Your task to perform on an android device: Open settings on Google Maps Image 0: 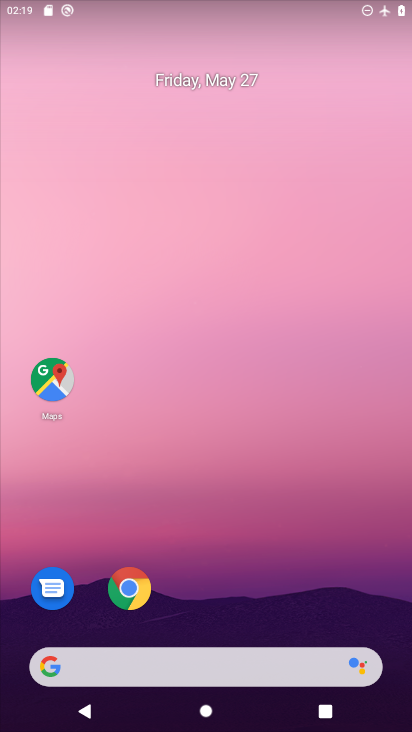
Step 0: click (53, 380)
Your task to perform on an android device: Open settings on Google Maps Image 1: 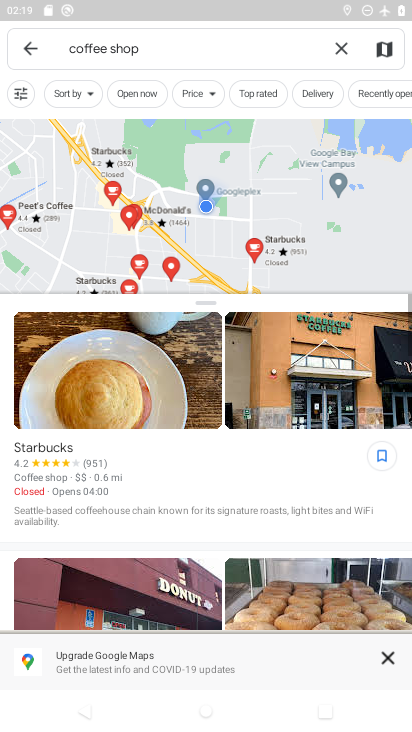
Step 1: click (341, 45)
Your task to perform on an android device: Open settings on Google Maps Image 2: 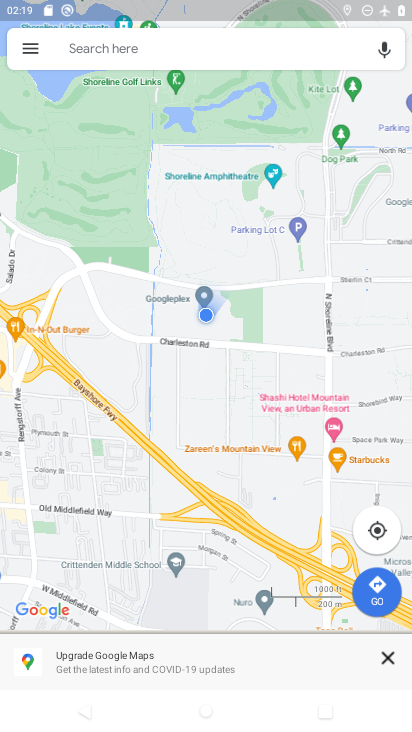
Step 2: click (40, 47)
Your task to perform on an android device: Open settings on Google Maps Image 3: 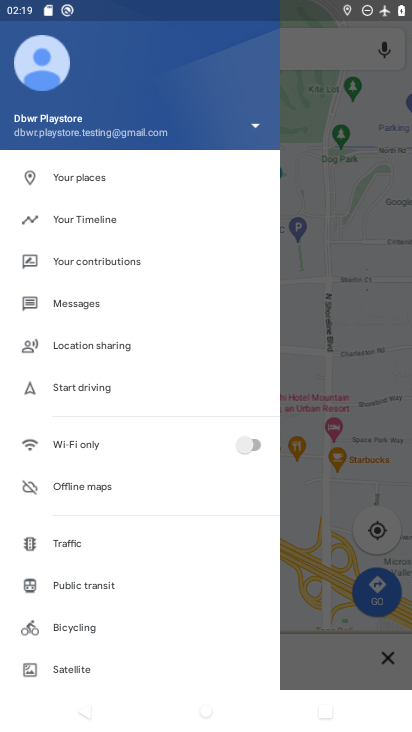
Step 3: drag from (150, 598) to (154, 240)
Your task to perform on an android device: Open settings on Google Maps Image 4: 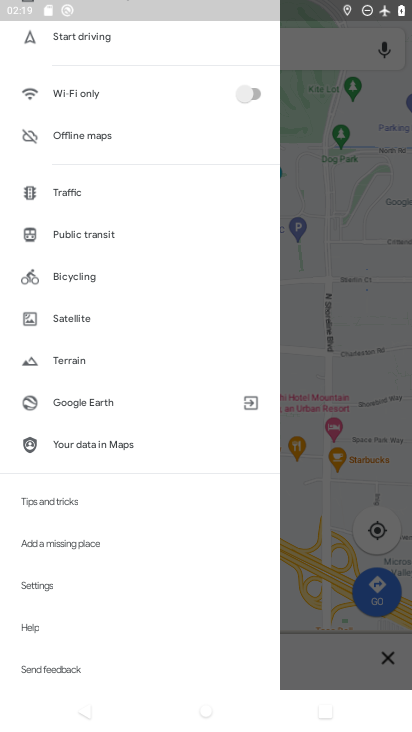
Step 4: click (36, 596)
Your task to perform on an android device: Open settings on Google Maps Image 5: 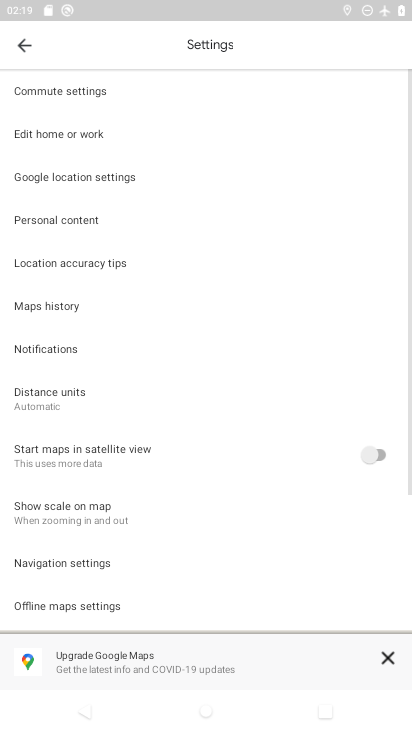
Step 5: drag from (225, 593) to (217, 313)
Your task to perform on an android device: Open settings on Google Maps Image 6: 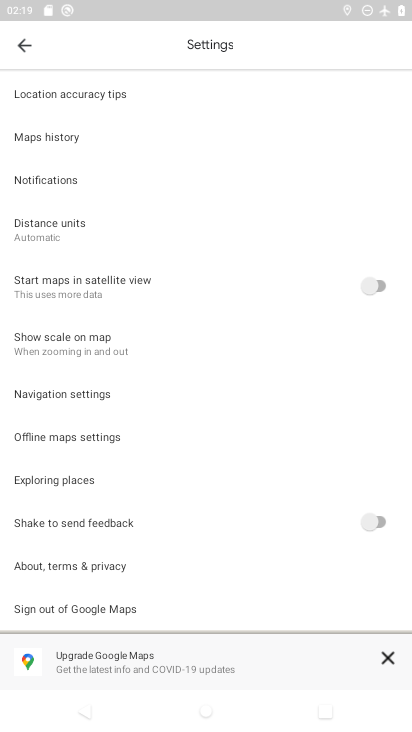
Step 6: click (386, 653)
Your task to perform on an android device: Open settings on Google Maps Image 7: 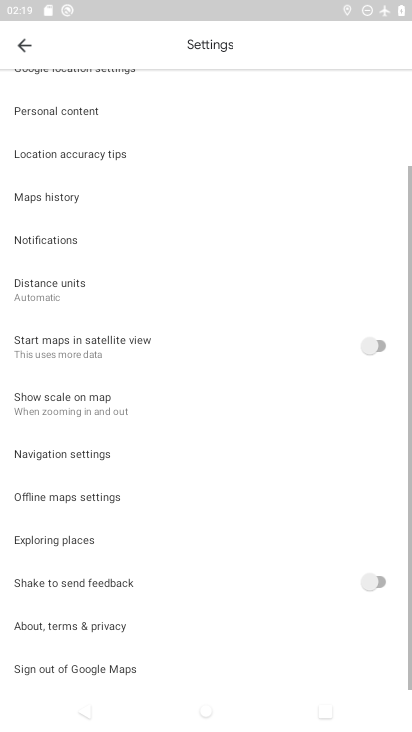
Step 7: task complete